Your task to perform on an android device: Is it going to rain this weekend? Image 0: 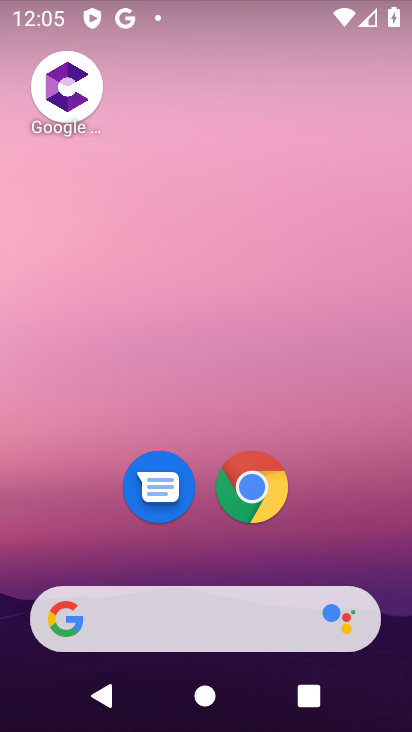
Step 0: drag from (329, 530) to (241, 78)
Your task to perform on an android device: Is it going to rain this weekend? Image 1: 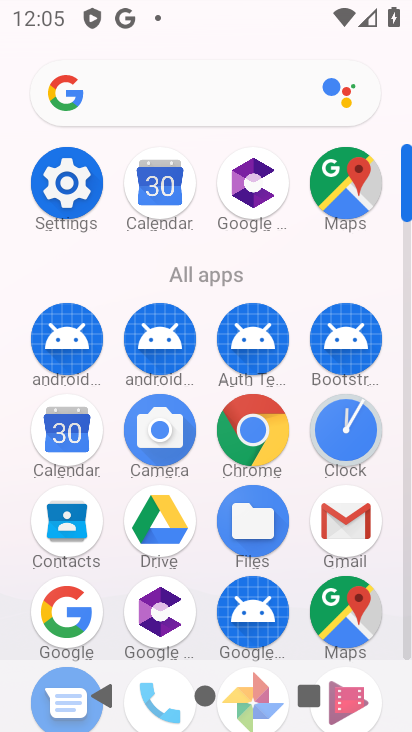
Step 1: click (60, 613)
Your task to perform on an android device: Is it going to rain this weekend? Image 2: 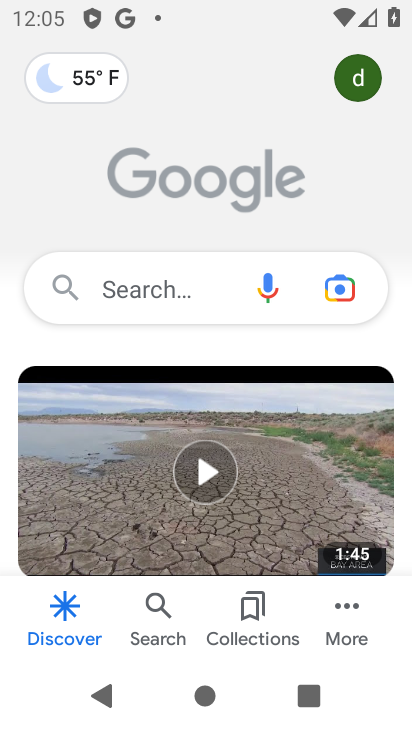
Step 2: click (139, 279)
Your task to perform on an android device: Is it going to rain this weekend? Image 3: 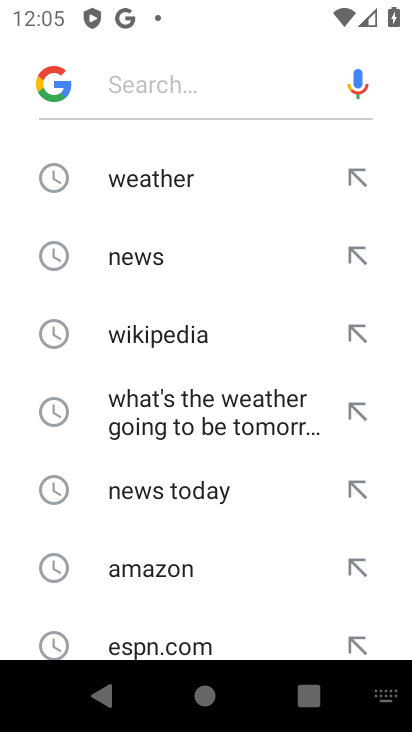
Step 3: click (197, 92)
Your task to perform on an android device: Is it going to rain this weekend? Image 4: 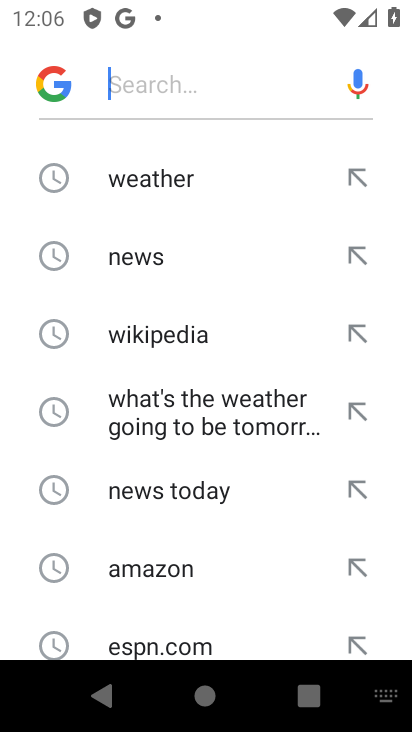
Step 4: type "Is it going to rain this weekend"
Your task to perform on an android device: Is it going to rain this weekend? Image 5: 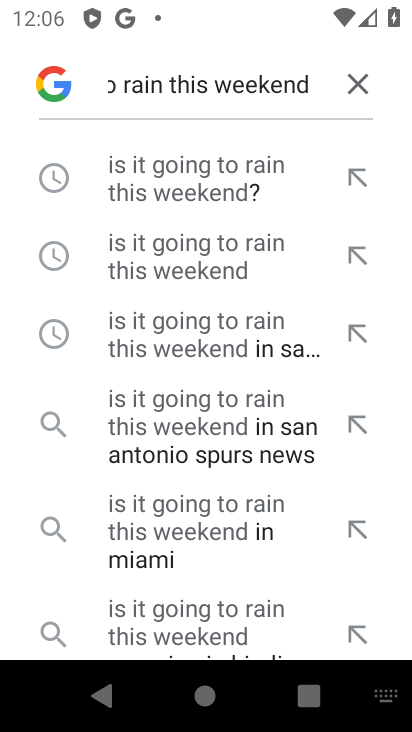
Step 5: click (200, 182)
Your task to perform on an android device: Is it going to rain this weekend? Image 6: 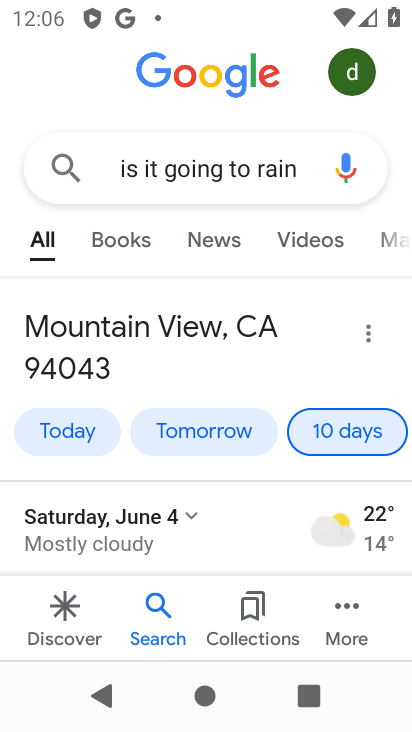
Step 6: task complete